Your task to perform on an android device: change your default location settings in chrome Image 0: 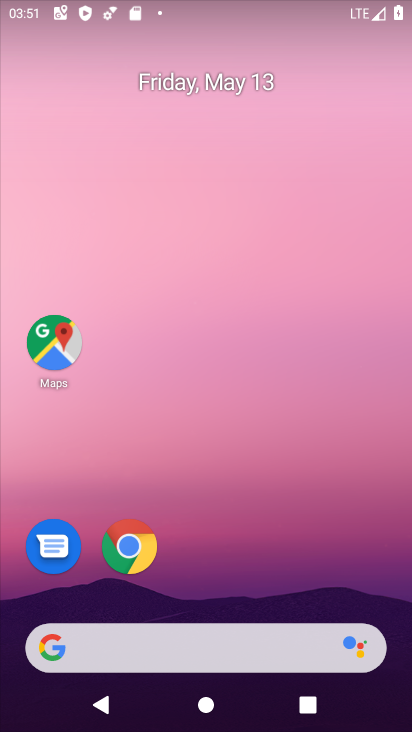
Step 0: click (134, 542)
Your task to perform on an android device: change your default location settings in chrome Image 1: 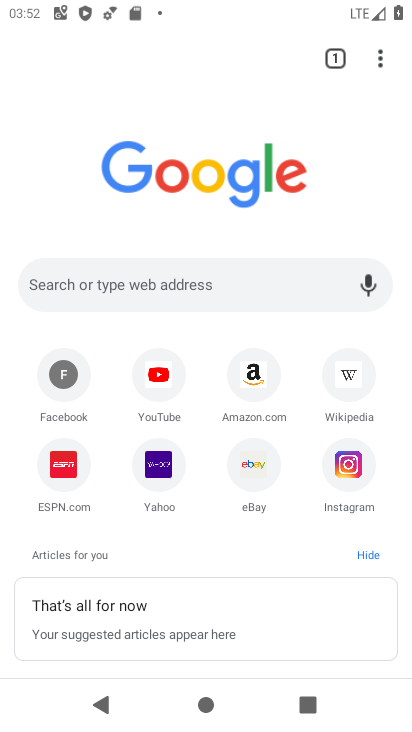
Step 1: click (391, 56)
Your task to perform on an android device: change your default location settings in chrome Image 2: 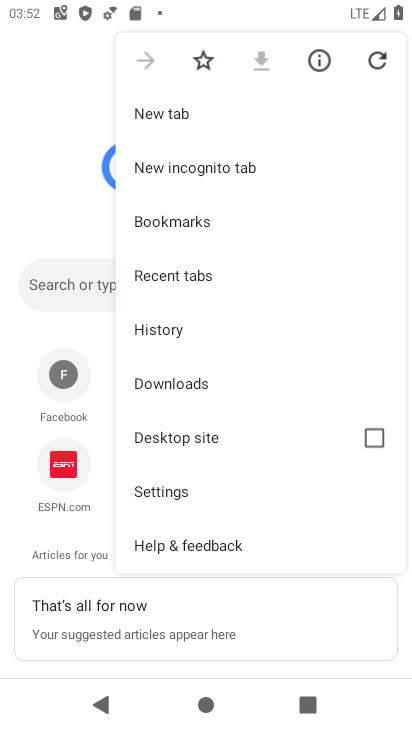
Step 2: click (188, 503)
Your task to perform on an android device: change your default location settings in chrome Image 3: 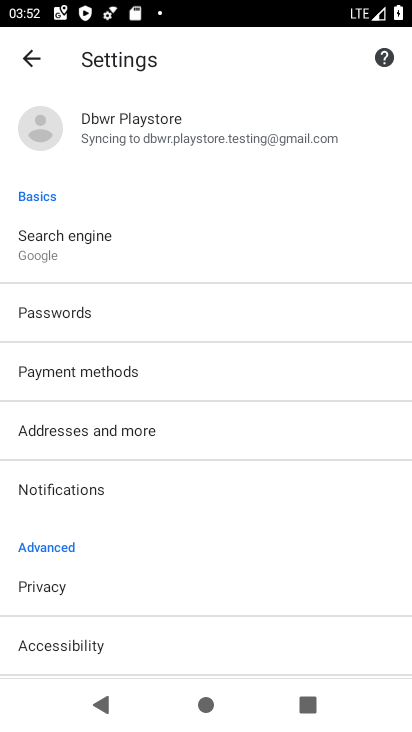
Step 3: drag from (130, 581) to (160, 68)
Your task to perform on an android device: change your default location settings in chrome Image 4: 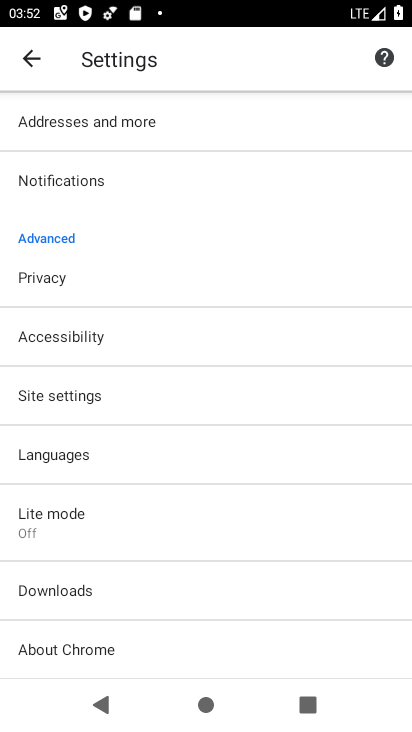
Step 4: click (108, 390)
Your task to perform on an android device: change your default location settings in chrome Image 5: 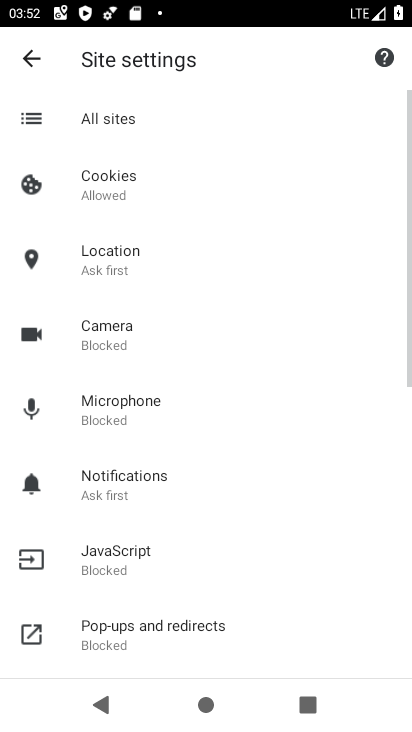
Step 5: click (141, 261)
Your task to perform on an android device: change your default location settings in chrome Image 6: 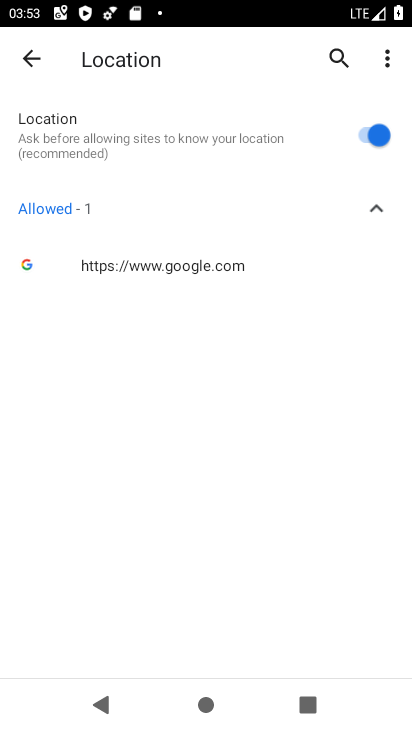
Step 6: click (362, 150)
Your task to perform on an android device: change your default location settings in chrome Image 7: 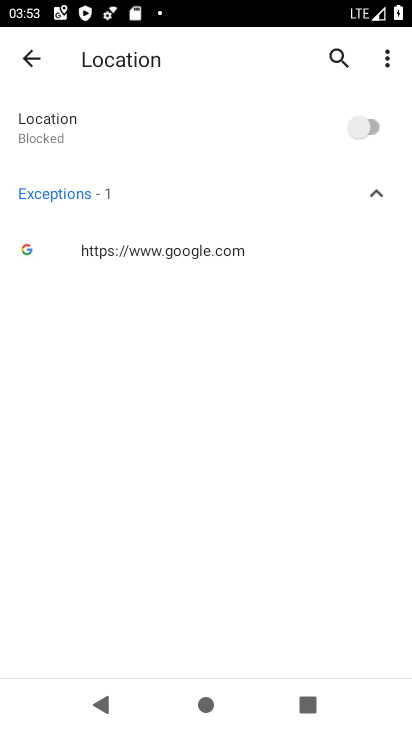
Step 7: task complete